Your task to perform on an android device: turn off data saver in the chrome app Image 0: 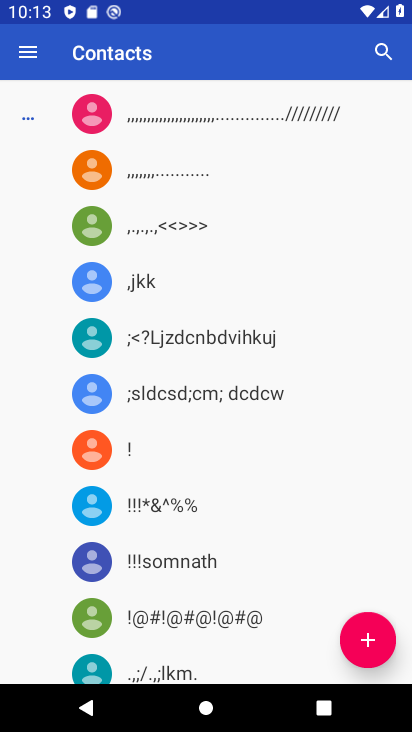
Step 0: press home button
Your task to perform on an android device: turn off data saver in the chrome app Image 1: 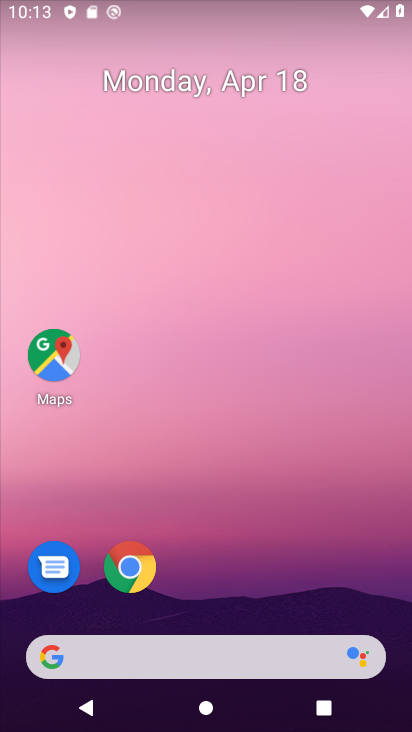
Step 1: click (148, 580)
Your task to perform on an android device: turn off data saver in the chrome app Image 2: 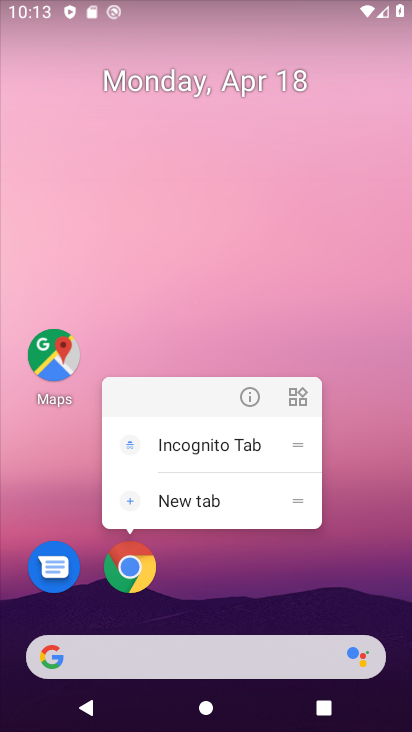
Step 2: click (146, 575)
Your task to perform on an android device: turn off data saver in the chrome app Image 3: 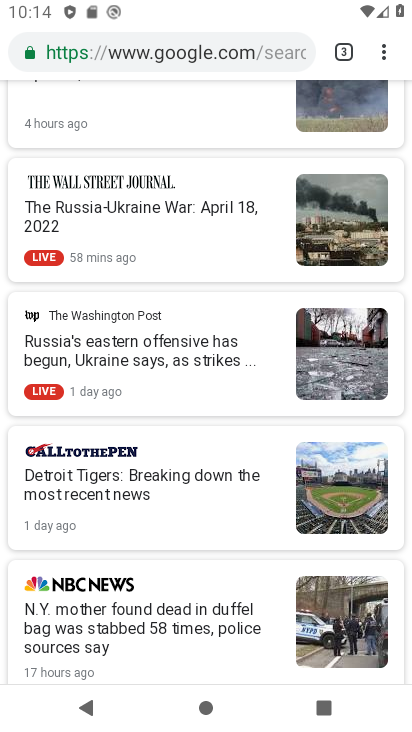
Step 3: click (388, 50)
Your task to perform on an android device: turn off data saver in the chrome app Image 4: 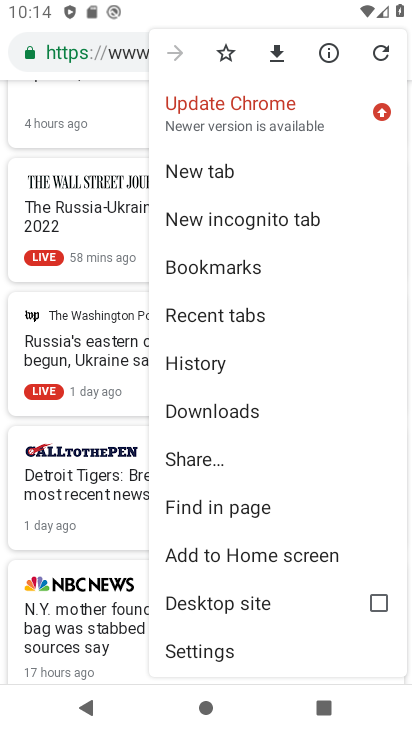
Step 4: click (209, 647)
Your task to perform on an android device: turn off data saver in the chrome app Image 5: 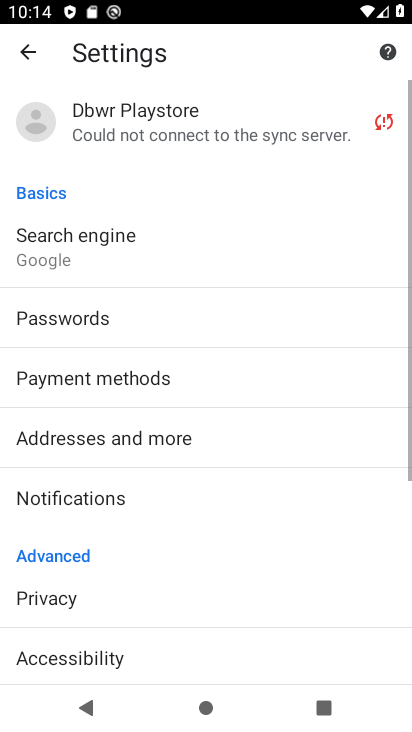
Step 5: drag from (208, 612) to (237, 125)
Your task to perform on an android device: turn off data saver in the chrome app Image 6: 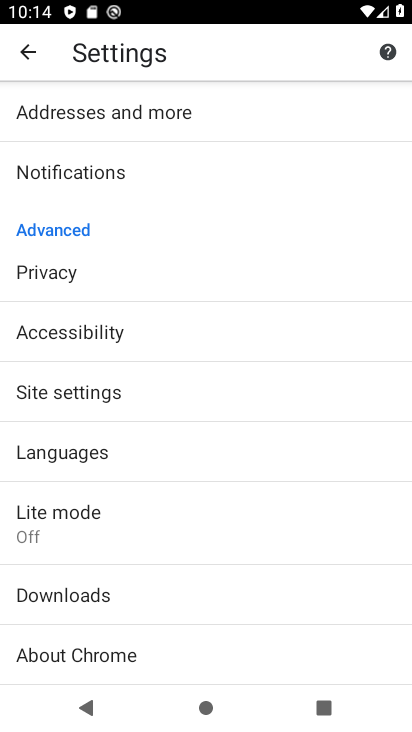
Step 6: click (58, 515)
Your task to perform on an android device: turn off data saver in the chrome app Image 7: 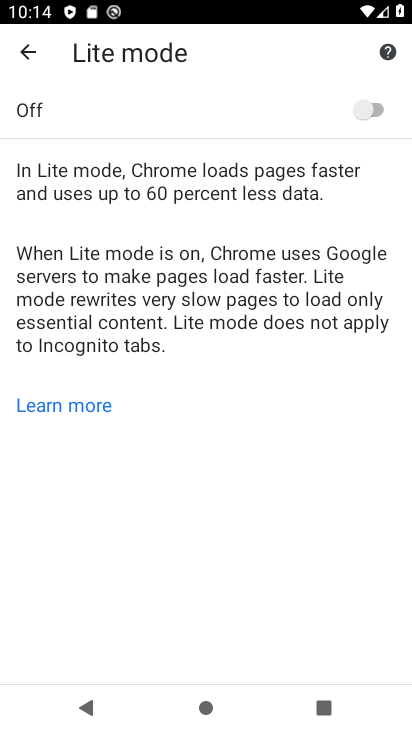
Step 7: task complete